Your task to perform on an android device: Open Reddit.com Image 0: 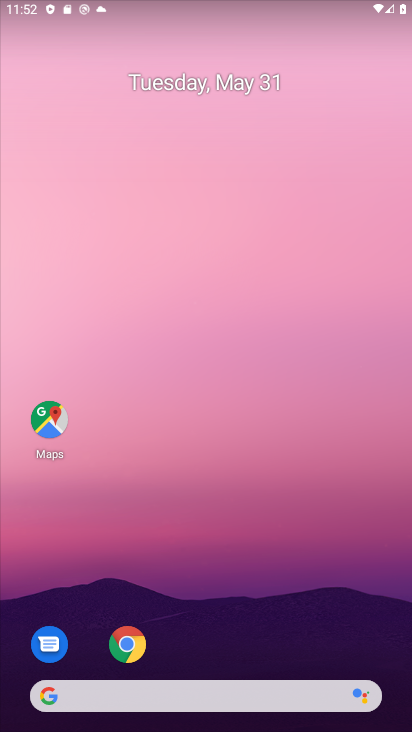
Step 0: drag from (255, 601) to (256, 40)
Your task to perform on an android device: Open Reddit.com Image 1: 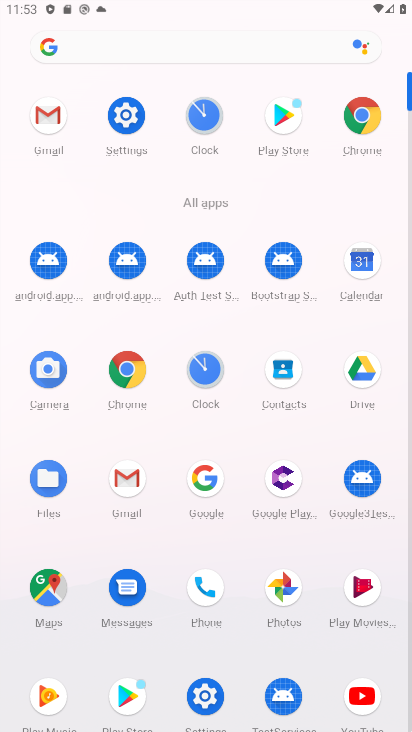
Step 1: click (131, 374)
Your task to perform on an android device: Open Reddit.com Image 2: 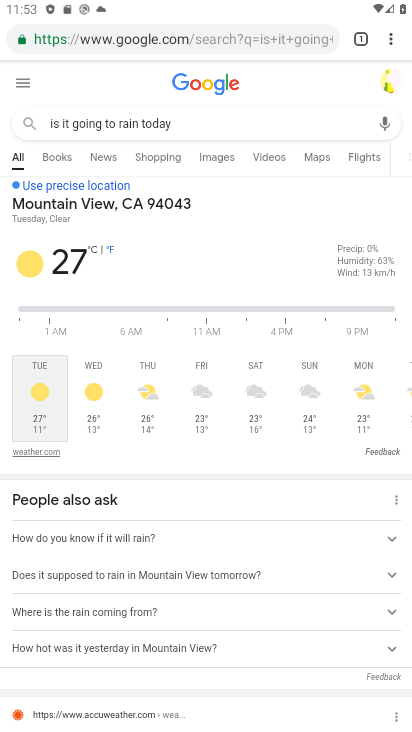
Step 2: click (203, 37)
Your task to perform on an android device: Open Reddit.com Image 3: 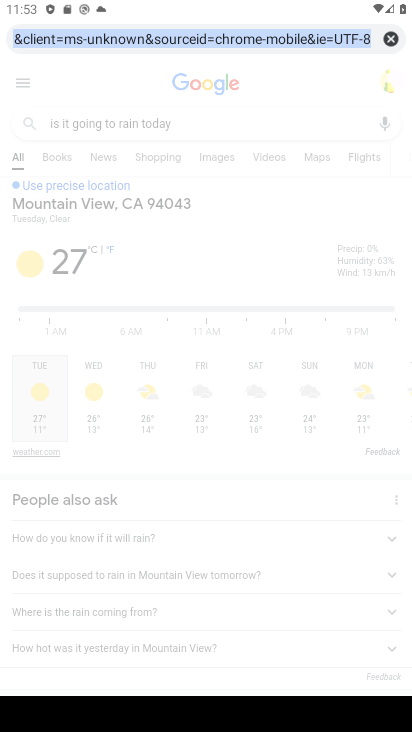
Step 3: click (391, 31)
Your task to perform on an android device: Open Reddit.com Image 4: 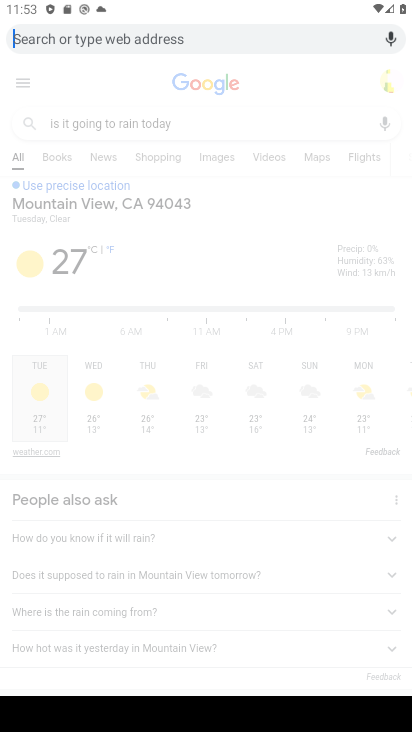
Step 4: type "reddit.com"
Your task to perform on an android device: Open Reddit.com Image 5: 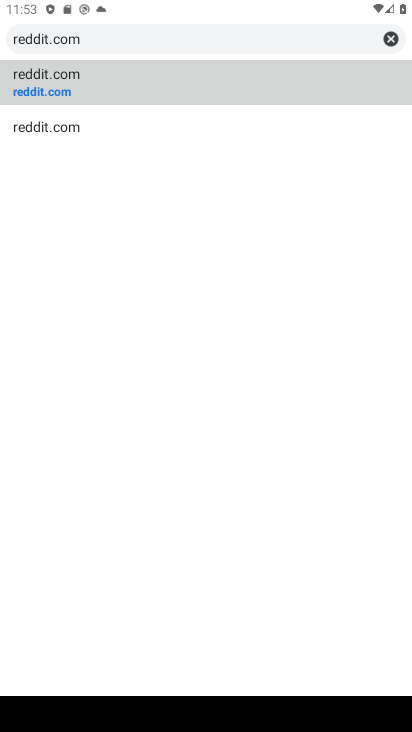
Step 5: click (99, 97)
Your task to perform on an android device: Open Reddit.com Image 6: 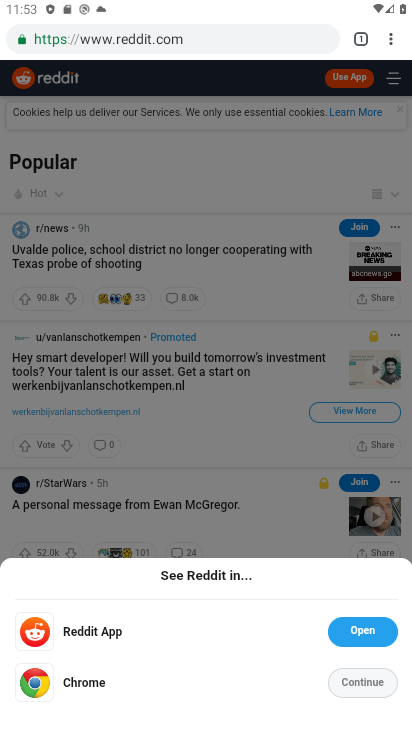
Step 6: task complete